Your task to perform on an android device: Is it going to rain today? Image 0: 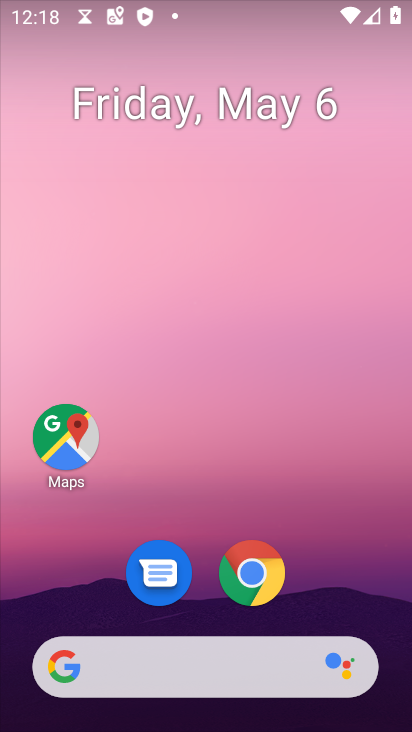
Step 0: drag from (342, 591) to (342, 286)
Your task to perform on an android device: Is it going to rain today? Image 1: 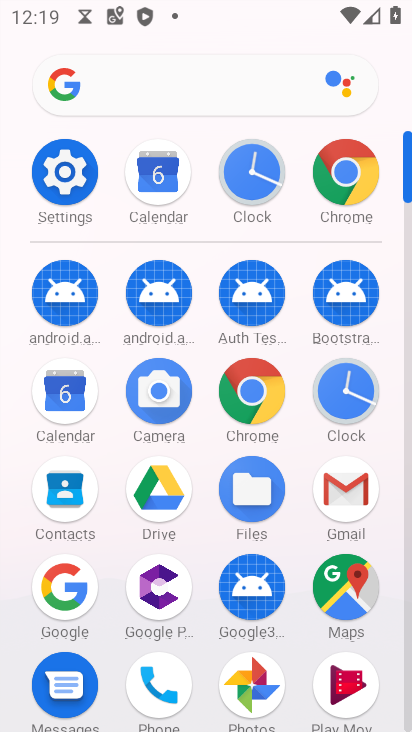
Step 1: click (243, 392)
Your task to perform on an android device: Is it going to rain today? Image 2: 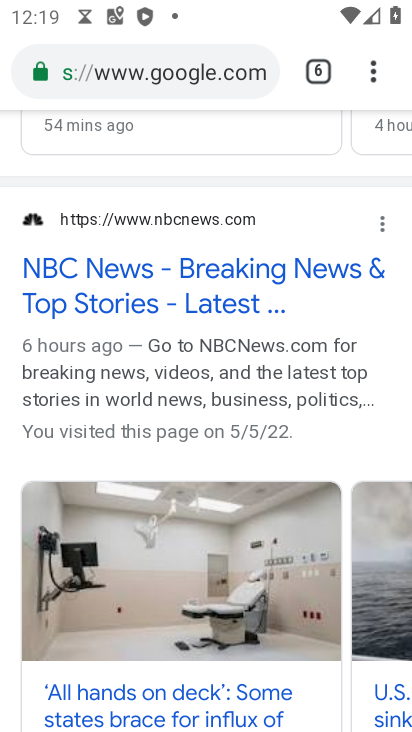
Step 2: click (360, 66)
Your task to perform on an android device: Is it going to rain today? Image 3: 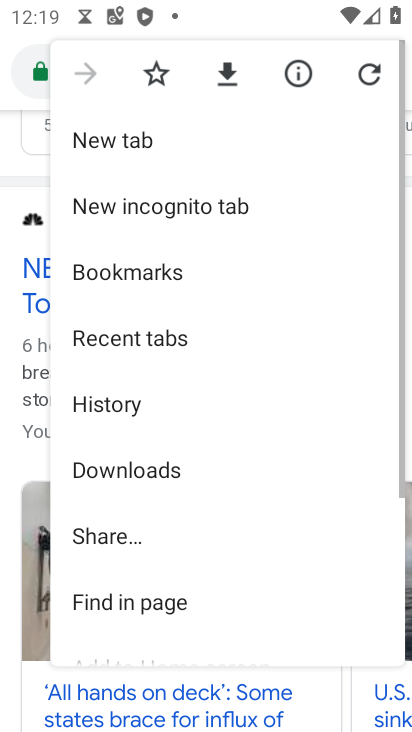
Step 3: click (98, 137)
Your task to perform on an android device: Is it going to rain today? Image 4: 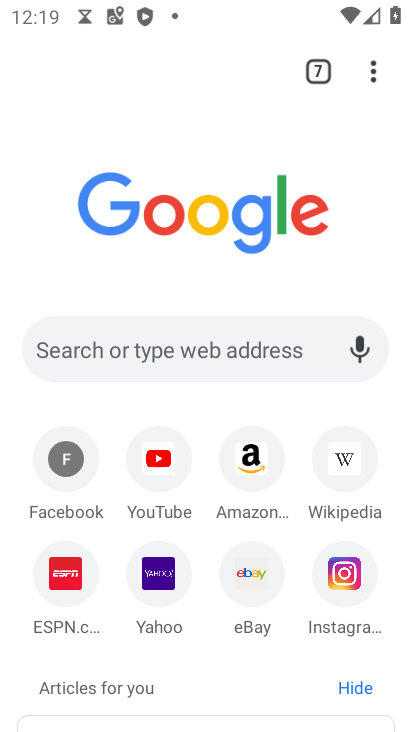
Step 4: click (196, 336)
Your task to perform on an android device: Is it going to rain today? Image 5: 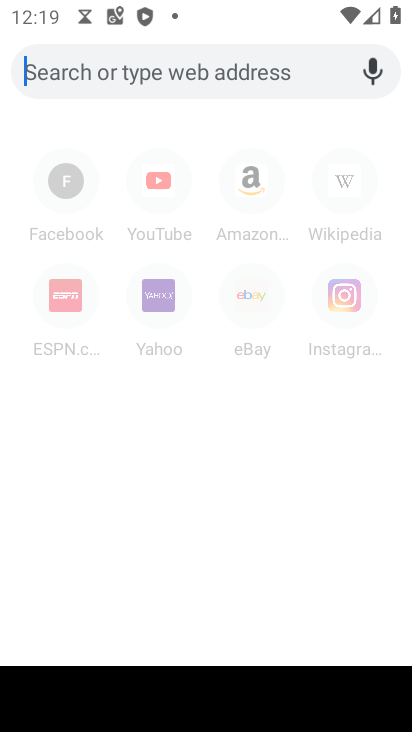
Step 5: type "Is it going to rain today?"
Your task to perform on an android device: Is it going to rain today? Image 6: 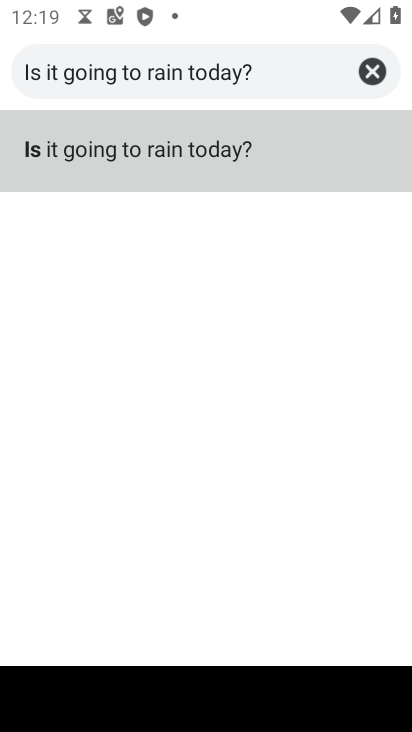
Step 6: click (261, 177)
Your task to perform on an android device: Is it going to rain today? Image 7: 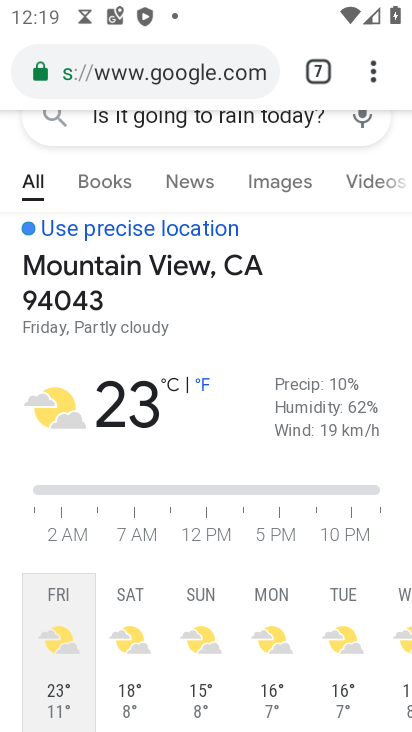
Step 7: task complete